Your task to perform on an android device: check out phone information Image 0: 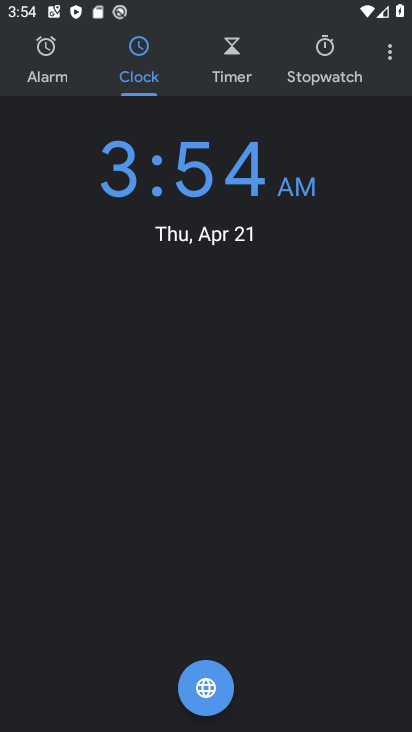
Step 0: press back button
Your task to perform on an android device: check out phone information Image 1: 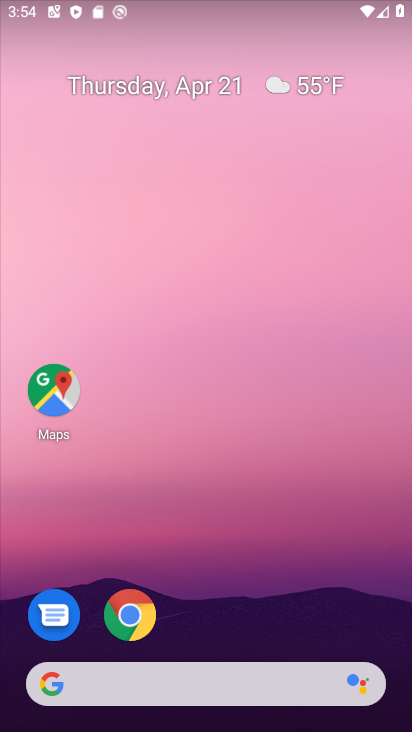
Step 1: drag from (250, 523) to (147, 7)
Your task to perform on an android device: check out phone information Image 2: 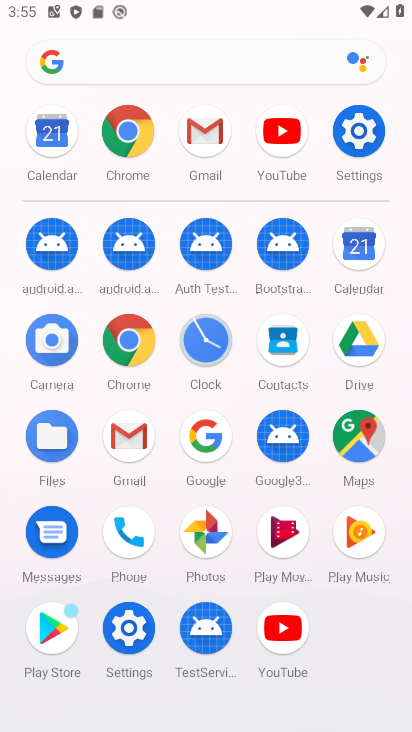
Step 2: click (356, 128)
Your task to perform on an android device: check out phone information Image 3: 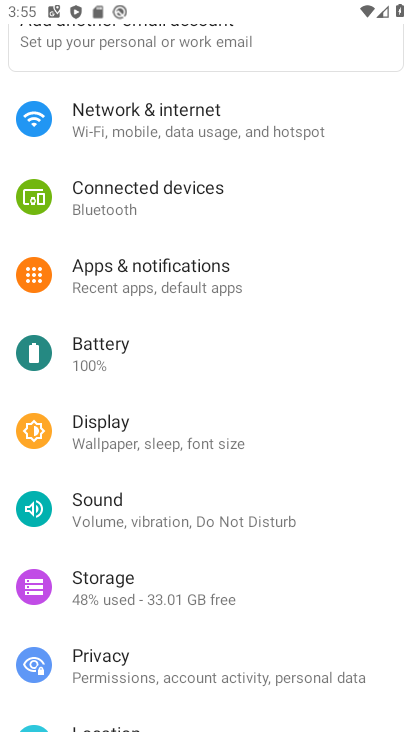
Step 3: drag from (283, 491) to (273, 136)
Your task to perform on an android device: check out phone information Image 4: 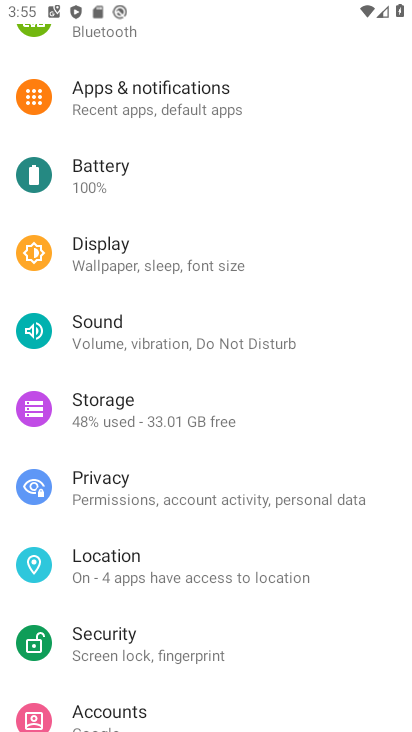
Step 4: drag from (273, 560) to (235, 158)
Your task to perform on an android device: check out phone information Image 5: 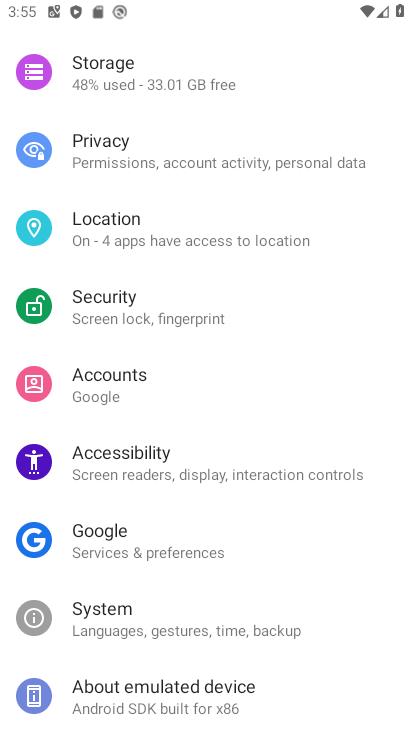
Step 5: drag from (244, 590) to (216, 174)
Your task to perform on an android device: check out phone information Image 6: 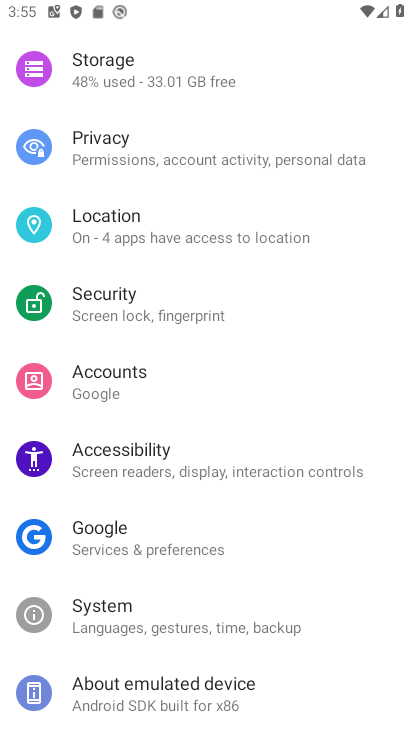
Step 6: drag from (243, 604) to (236, 266)
Your task to perform on an android device: check out phone information Image 7: 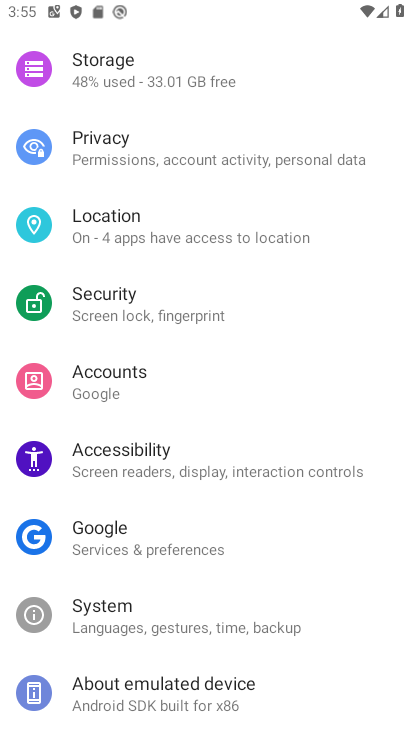
Step 7: click (201, 698)
Your task to perform on an android device: check out phone information Image 8: 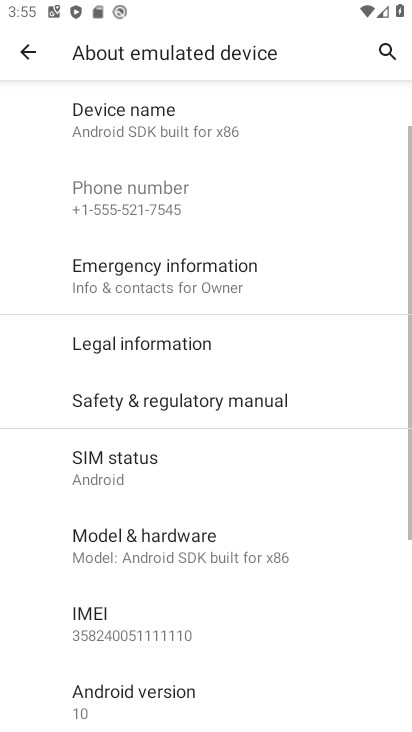
Step 8: task complete